Your task to perform on an android device: Open the calendar and show me this week's events? Image 0: 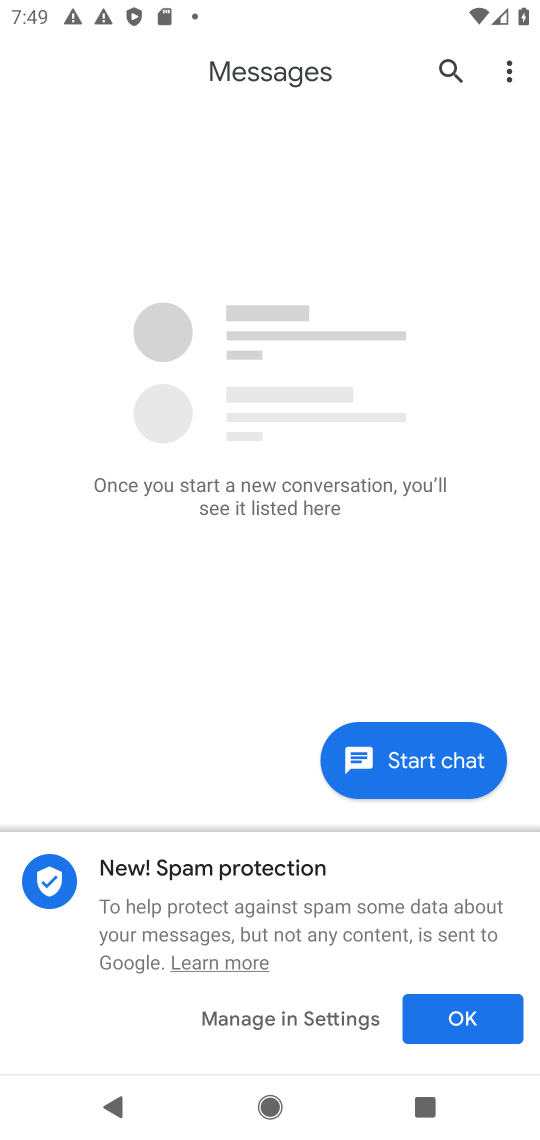
Step 0: press home button
Your task to perform on an android device: Open the calendar and show me this week's events? Image 1: 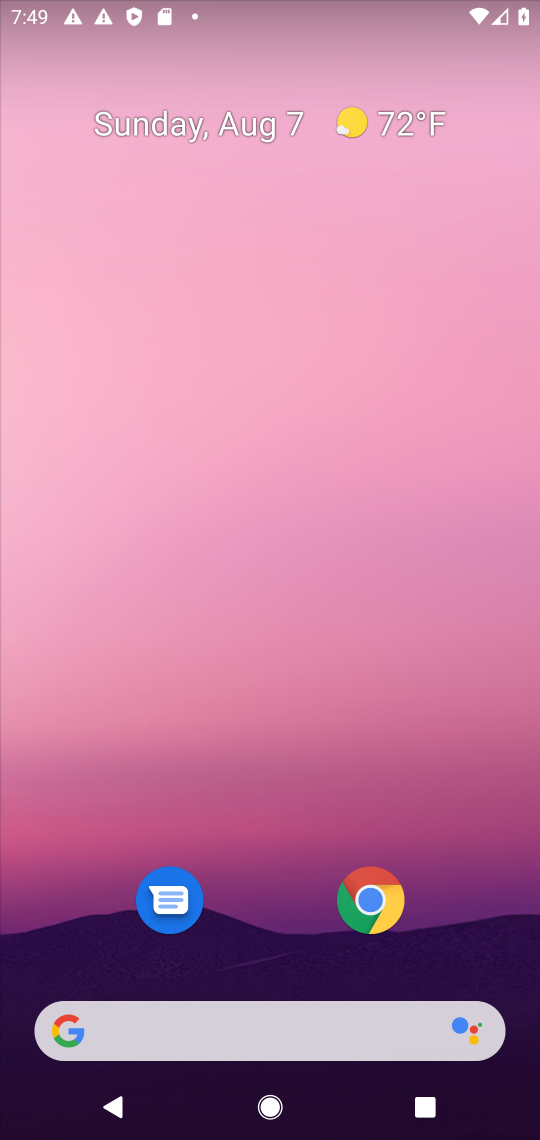
Step 1: drag from (269, 997) to (426, 53)
Your task to perform on an android device: Open the calendar and show me this week's events? Image 2: 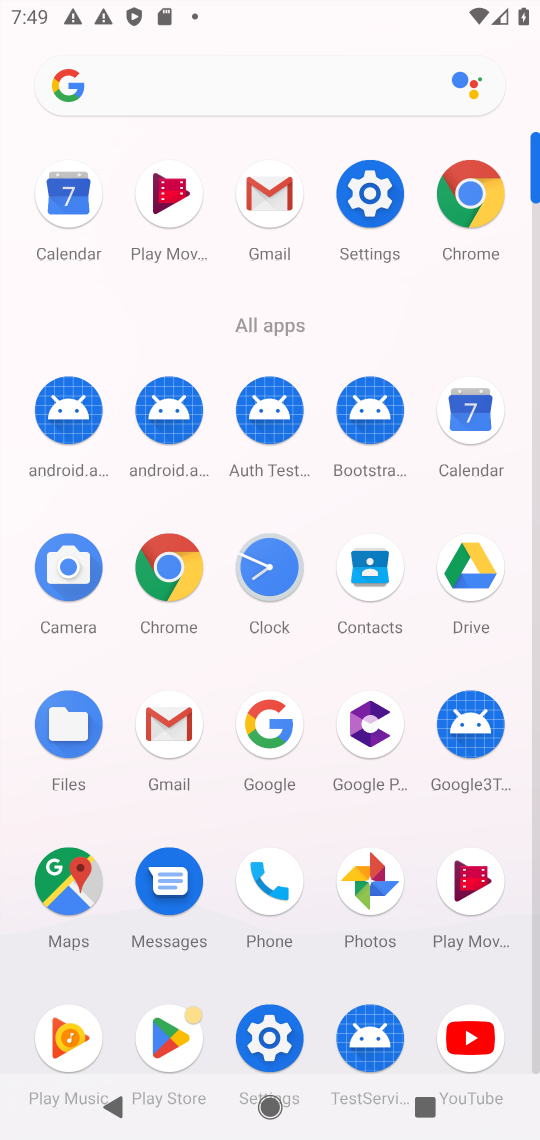
Step 2: click (481, 406)
Your task to perform on an android device: Open the calendar and show me this week's events? Image 3: 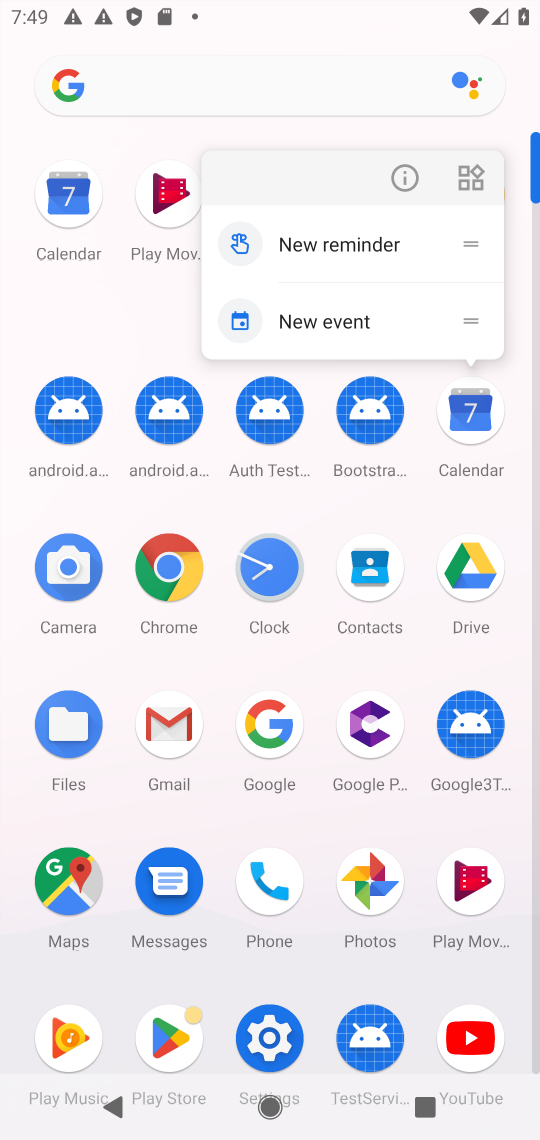
Step 3: click (480, 408)
Your task to perform on an android device: Open the calendar and show me this week's events? Image 4: 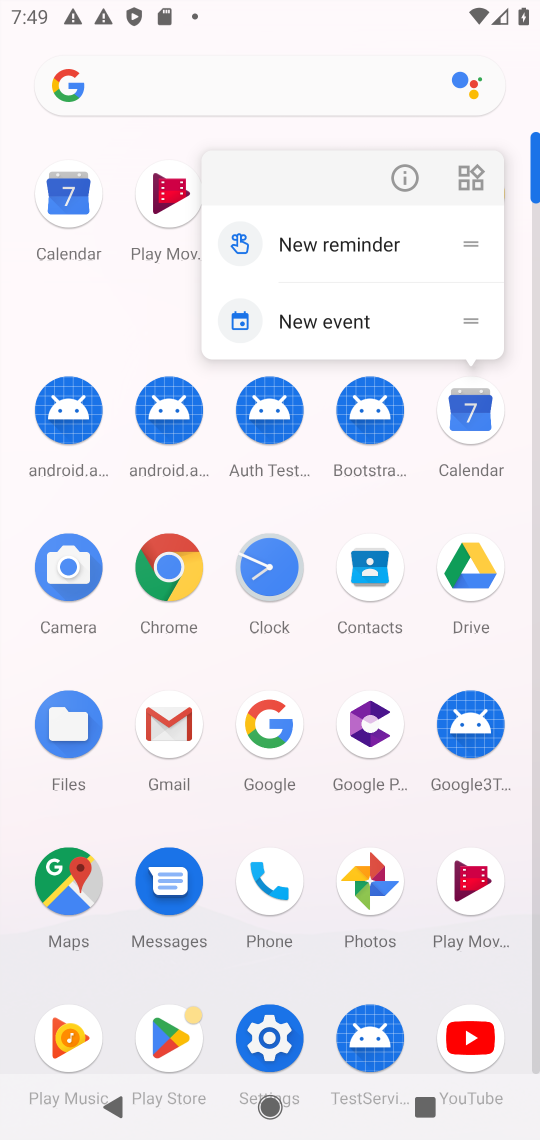
Step 4: click (469, 420)
Your task to perform on an android device: Open the calendar and show me this week's events? Image 5: 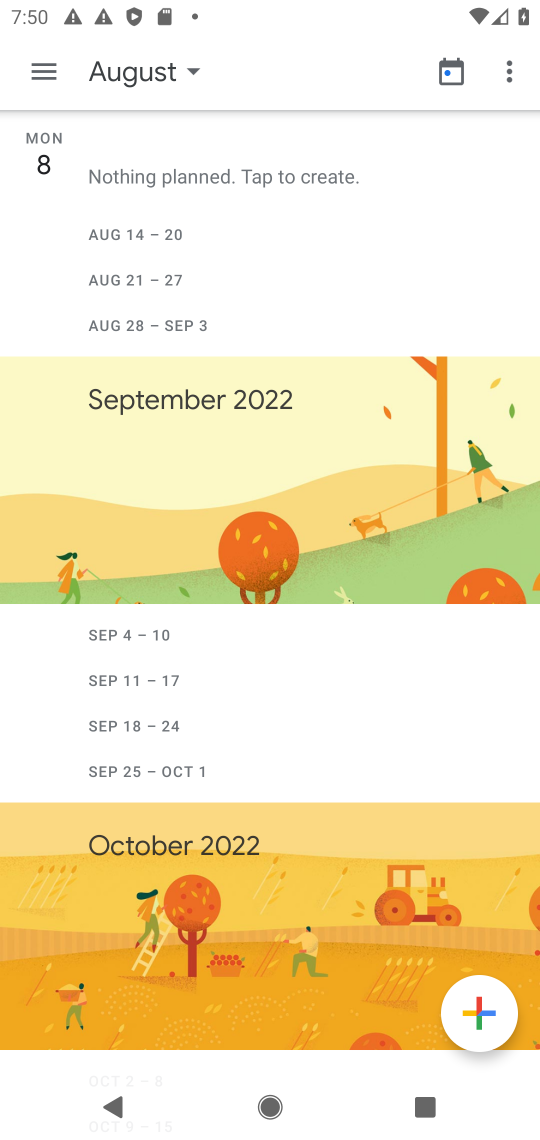
Step 5: click (114, 70)
Your task to perform on an android device: Open the calendar and show me this week's events? Image 6: 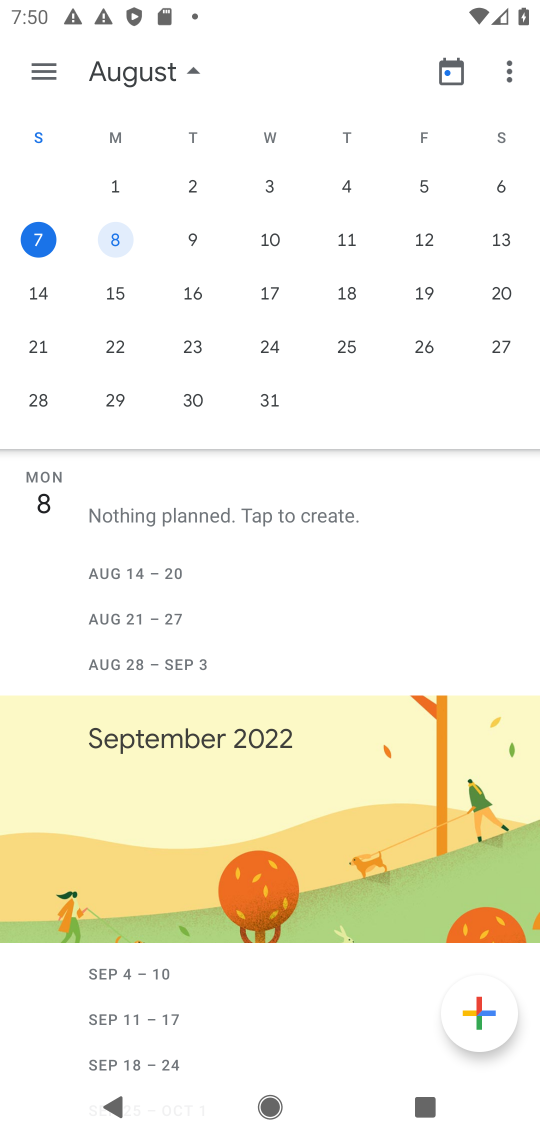
Step 6: click (37, 248)
Your task to perform on an android device: Open the calendar and show me this week's events? Image 7: 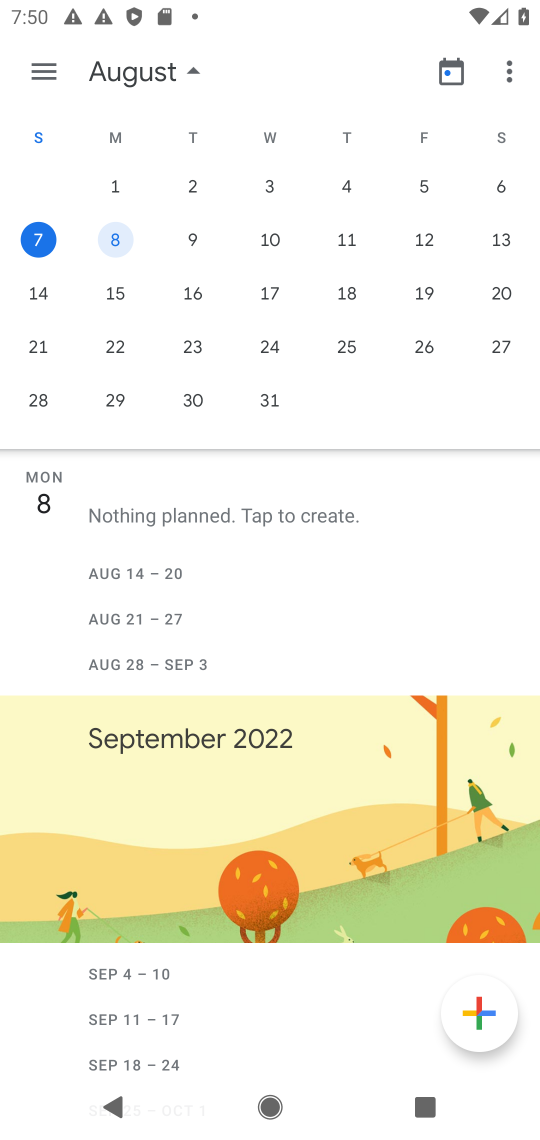
Step 7: click (48, 78)
Your task to perform on an android device: Open the calendar and show me this week's events? Image 8: 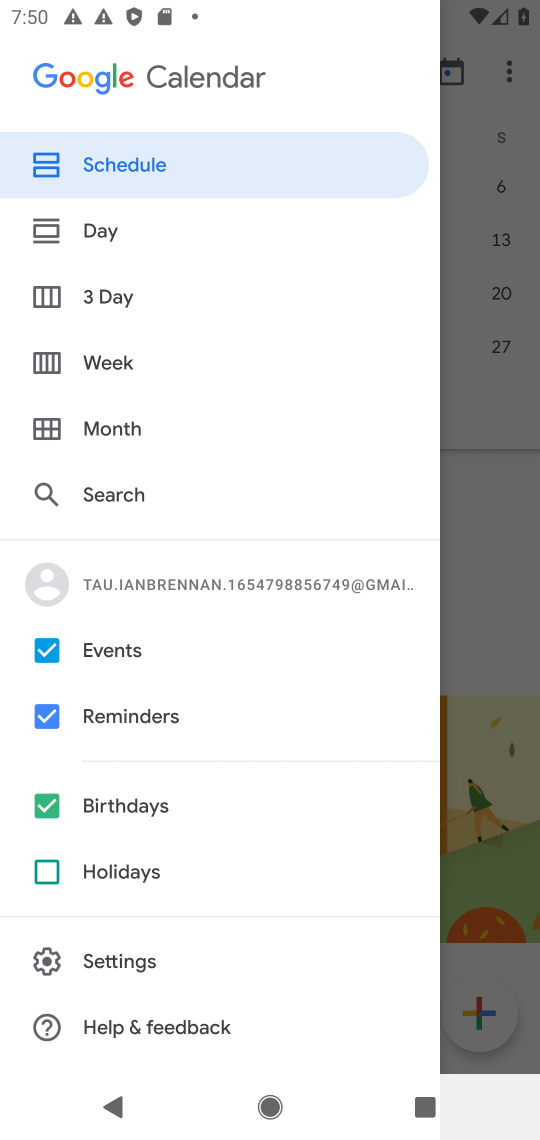
Step 8: click (125, 362)
Your task to perform on an android device: Open the calendar and show me this week's events? Image 9: 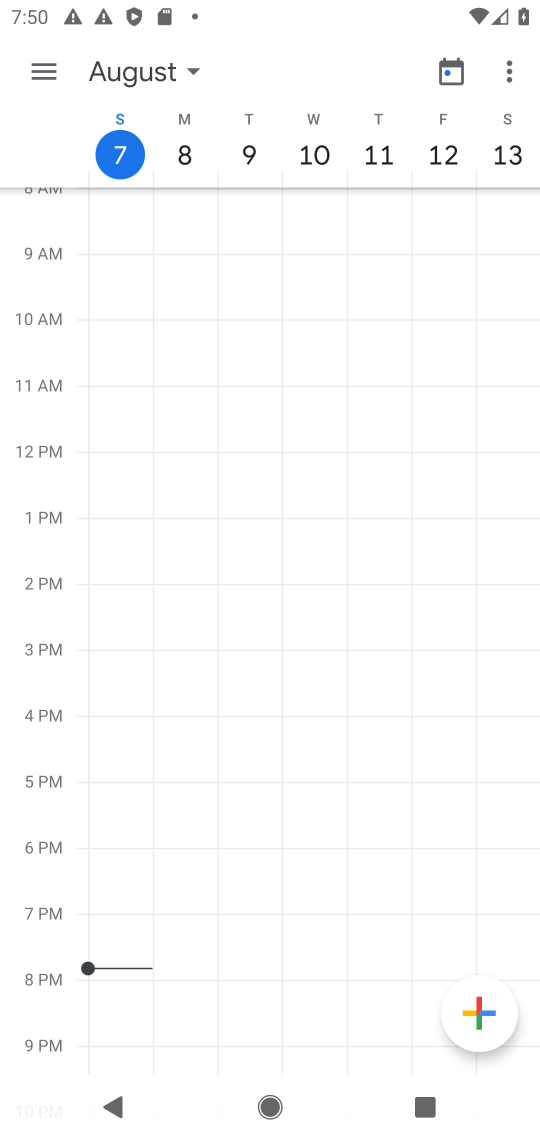
Step 9: click (43, 65)
Your task to perform on an android device: Open the calendar and show me this week's events? Image 10: 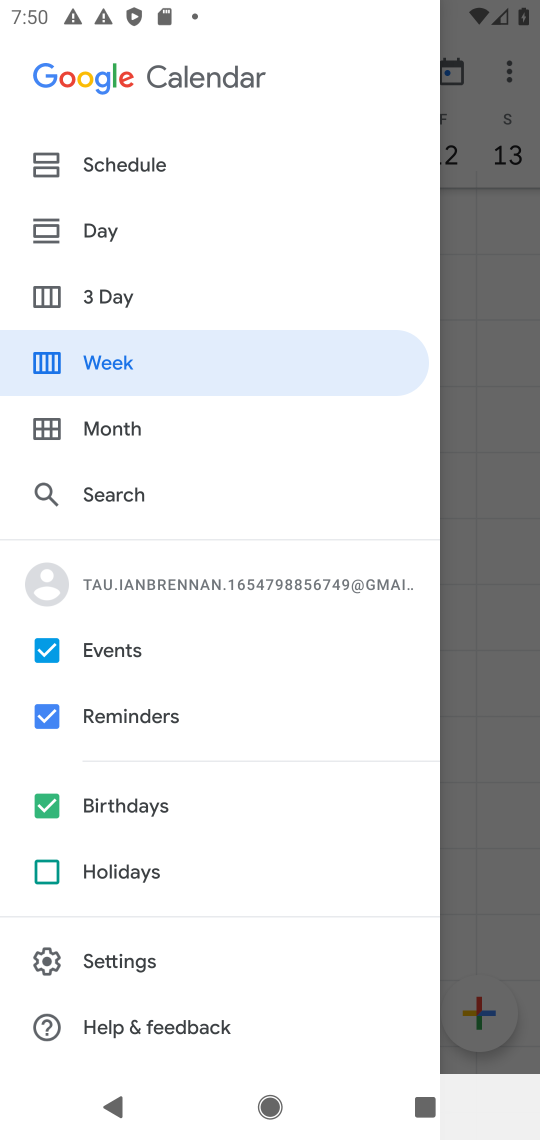
Step 10: click (133, 154)
Your task to perform on an android device: Open the calendar and show me this week's events? Image 11: 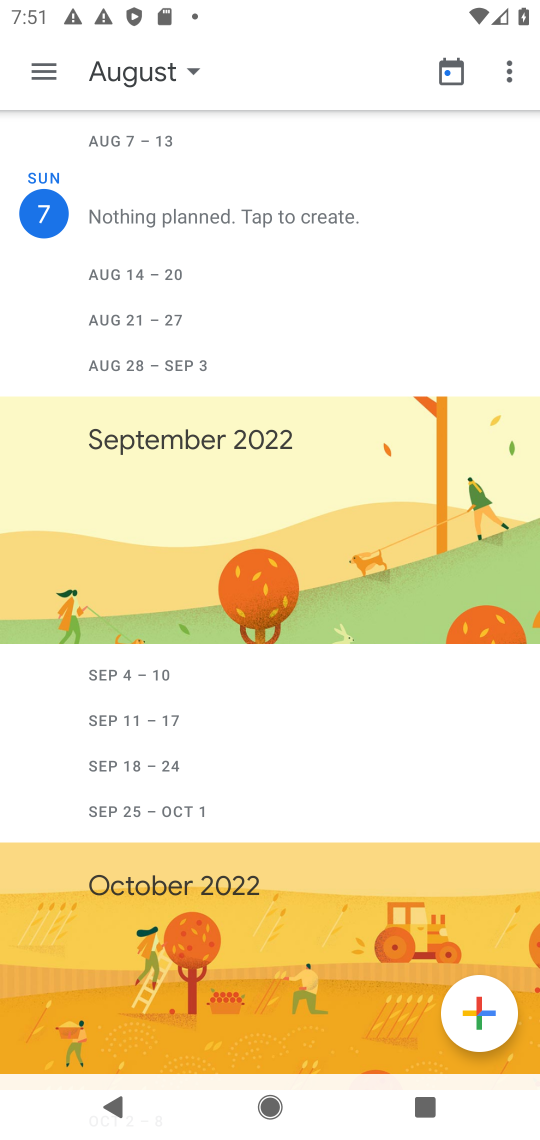
Step 11: task complete